Your task to perform on an android device: change text size in settings app Image 0: 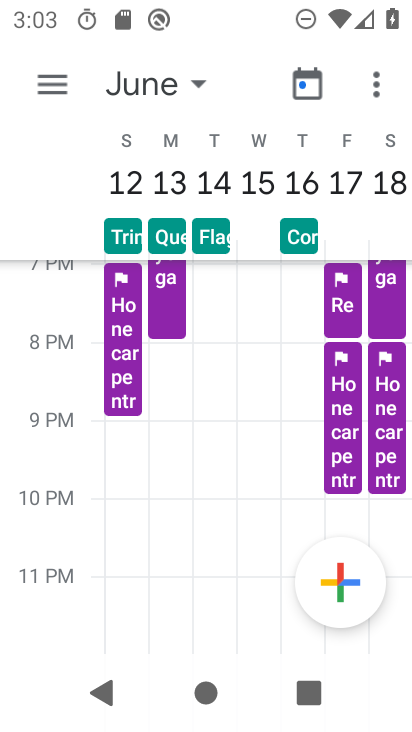
Step 0: press home button
Your task to perform on an android device: change text size in settings app Image 1: 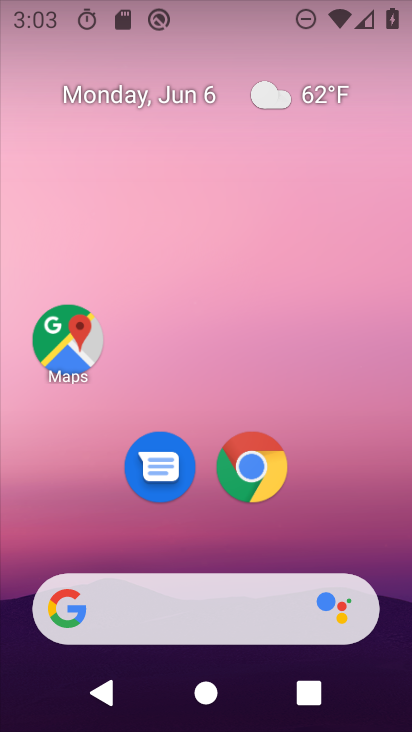
Step 1: drag from (226, 544) to (241, 199)
Your task to perform on an android device: change text size in settings app Image 2: 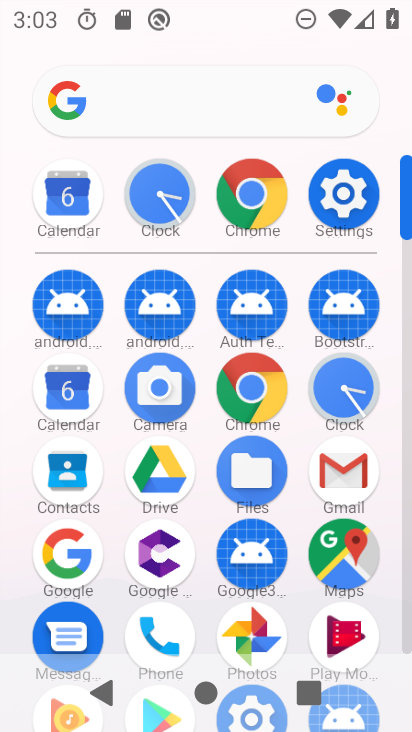
Step 2: click (343, 200)
Your task to perform on an android device: change text size in settings app Image 3: 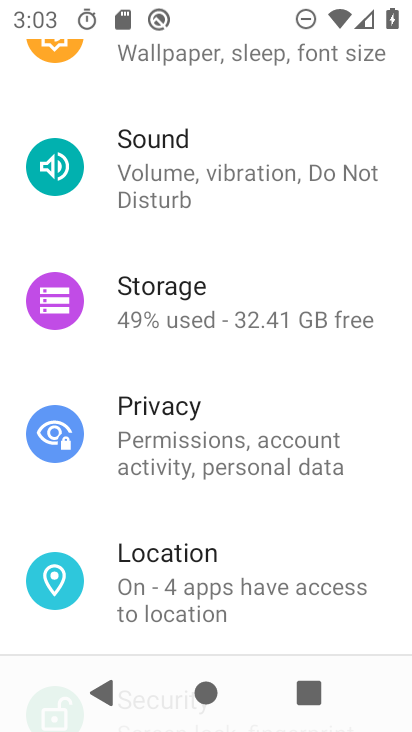
Step 3: drag from (204, 494) to (200, 194)
Your task to perform on an android device: change text size in settings app Image 4: 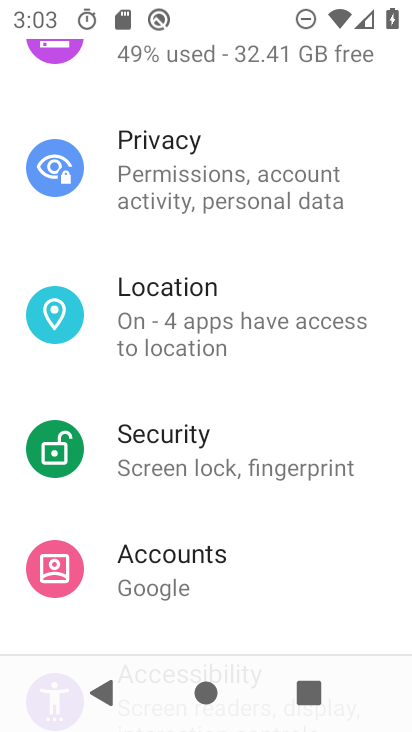
Step 4: drag from (196, 231) to (208, 506)
Your task to perform on an android device: change text size in settings app Image 5: 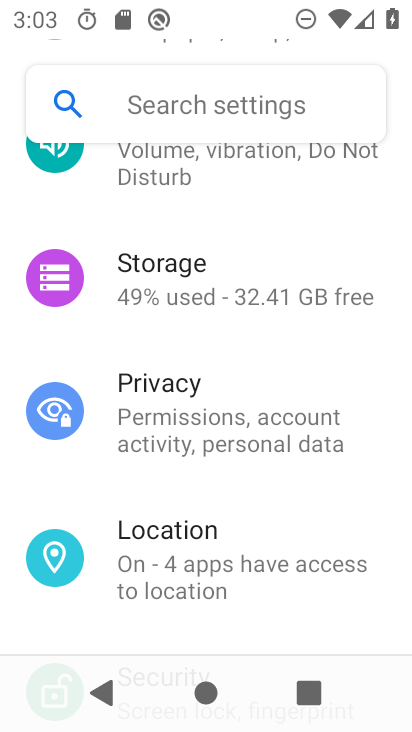
Step 5: drag from (191, 221) to (203, 490)
Your task to perform on an android device: change text size in settings app Image 6: 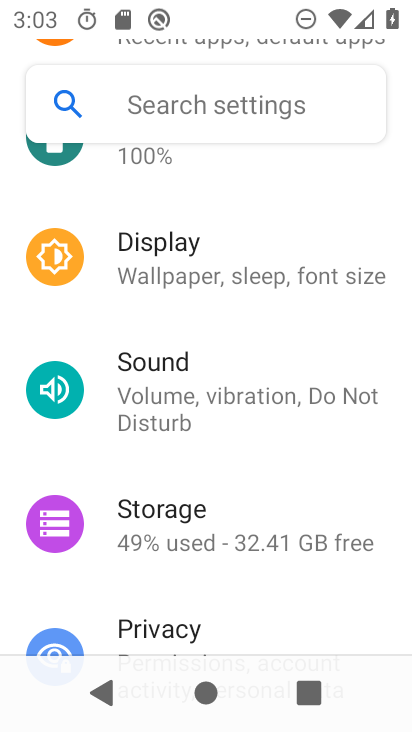
Step 6: click (158, 267)
Your task to perform on an android device: change text size in settings app Image 7: 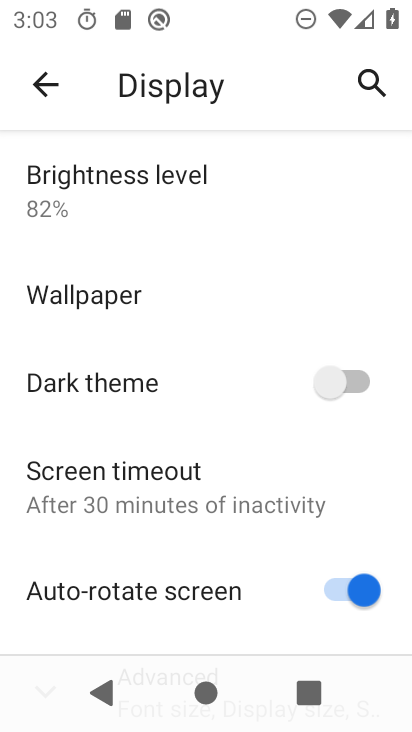
Step 7: drag from (150, 555) to (159, 207)
Your task to perform on an android device: change text size in settings app Image 8: 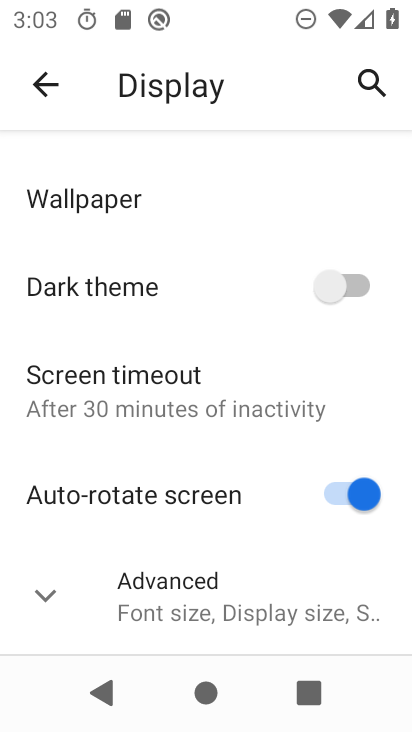
Step 8: click (130, 603)
Your task to perform on an android device: change text size in settings app Image 9: 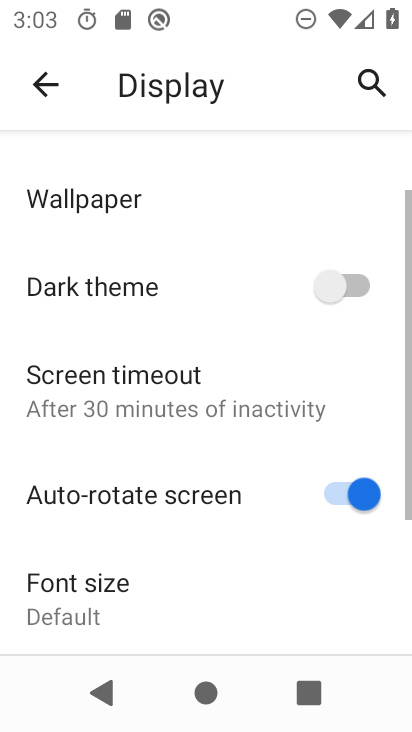
Step 9: drag from (130, 603) to (136, 369)
Your task to perform on an android device: change text size in settings app Image 10: 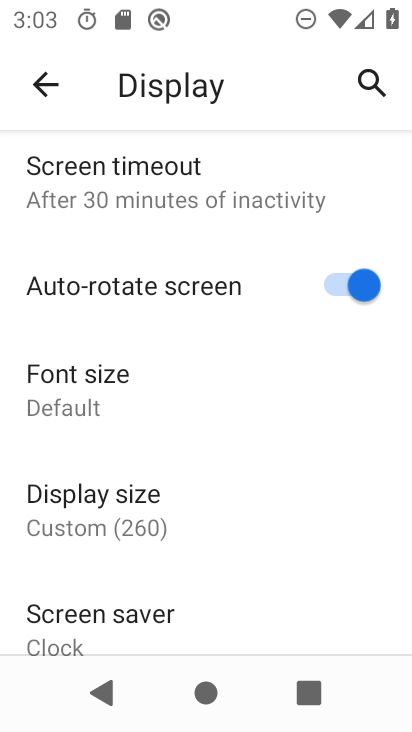
Step 10: click (102, 393)
Your task to perform on an android device: change text size in settings app Image 11: 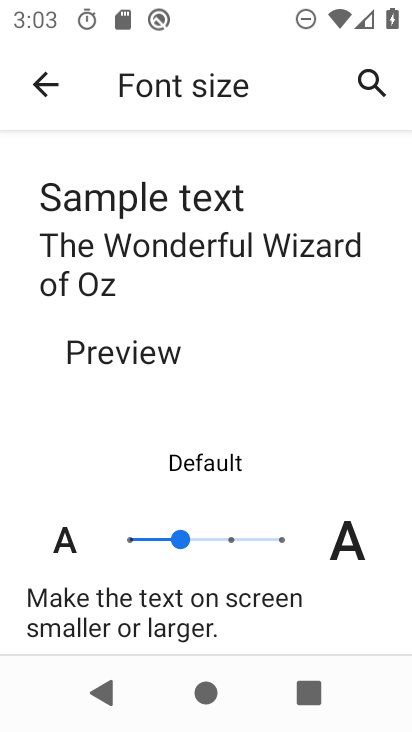
Step 11: click (216, 557)
Your task to perform on an android device: change text size in settings app Image 12: 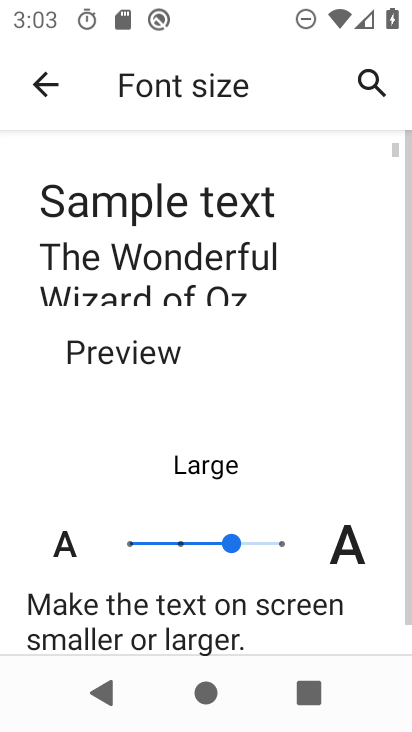
Step 12: task complete